Your task to perform on an android device: turn off picture-in-picture Image 0: 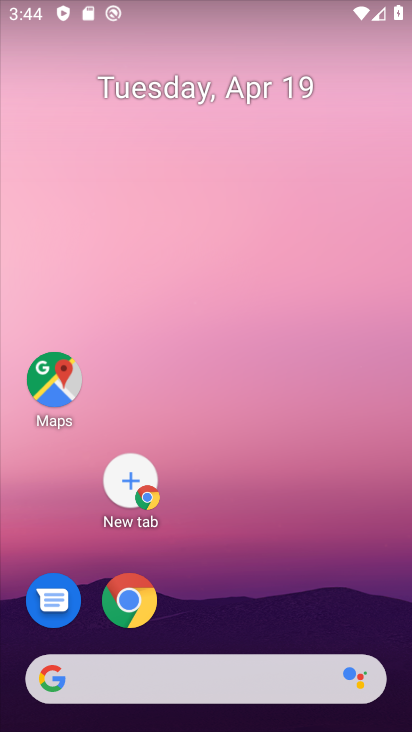
Step 0: click (146, 606)
Your task to perform on an android device: turn off picture-in-picture Image 1: 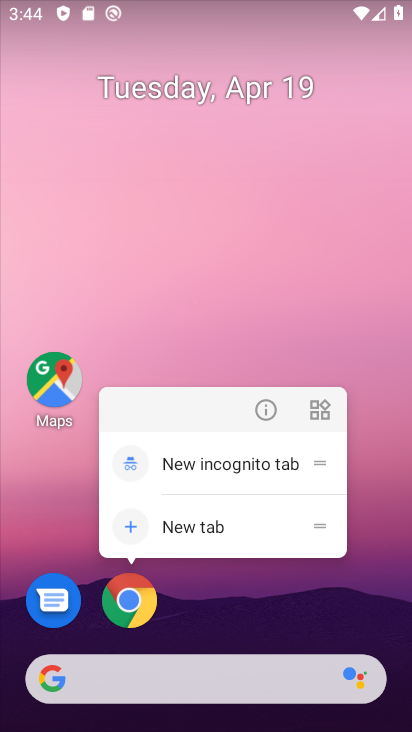
Step 1: click (268, 411)
Your task to perform on an android device: turn off picture-in-picture Image 2: 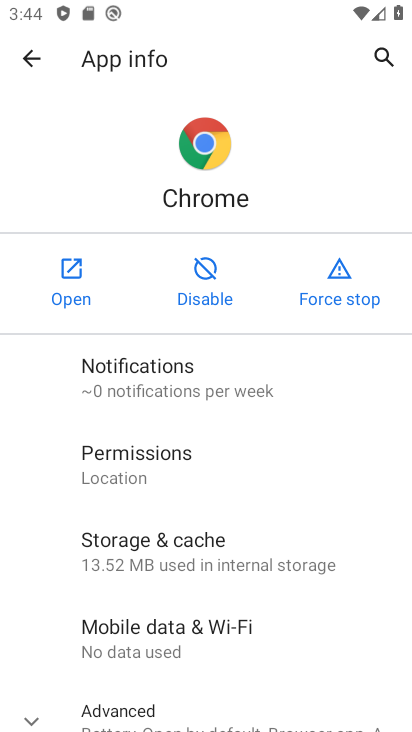
Step 2: drag from (216, 582) to (270, 74)
Your task to perform on an android device: turn off picture-in-picture Image 3: 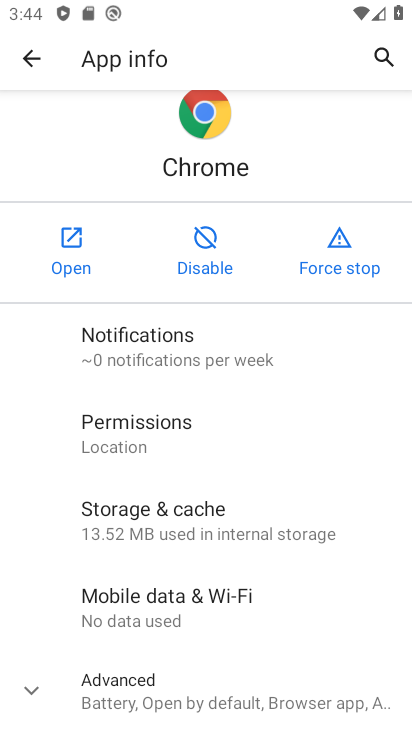
Step 3: drag from (154, 634) to (199, 20)
Your task to perform on an android device: turn off picture-in-picture Image 4: 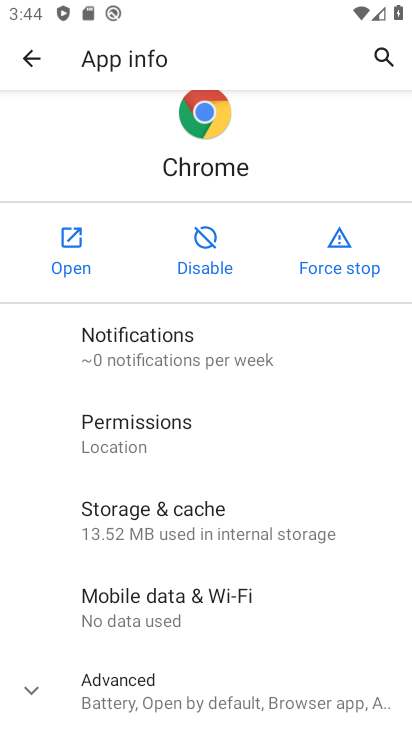
Step 4: drag from (154, 697) to (172, 220)
Your task to perform on an android device: turn off picture-in-picture Image 5: 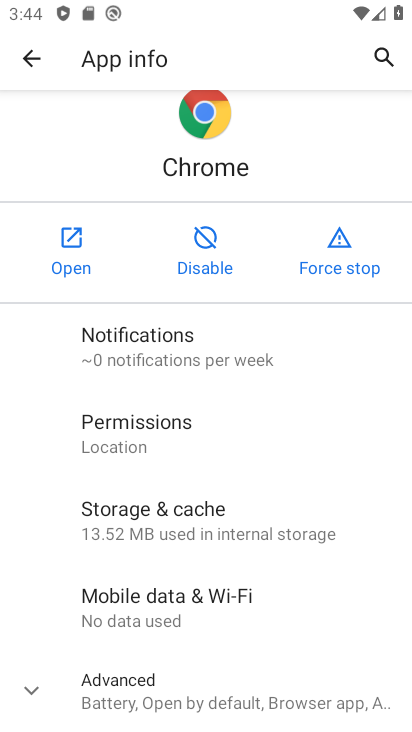
Step 5: click (112, 719)
Your task to perform on an android device: turn off picture-in-picture Image 6: 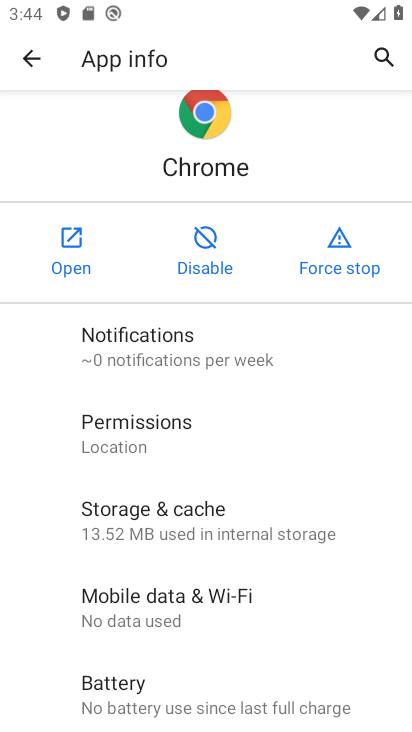
Step 6: drag from (135, 522) to (181, 40)
Your task to perform on an android device: turn off picture-in-picture Image 7: 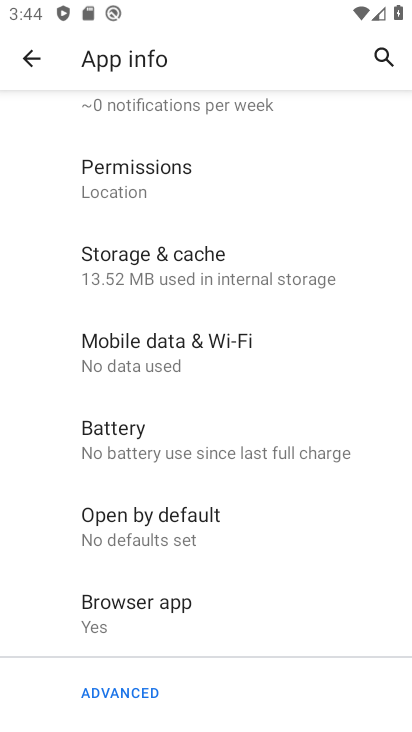
Step 7: drag from (91, 618) to (155, 141)
Your task to perform on an android device: turn off picture-in-picture Image 8: 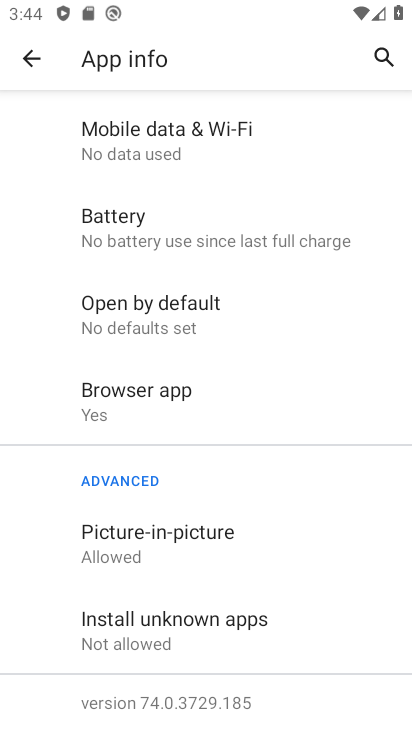
Step 8: click (113, 551)
Your task to perform on an android device: turn off picture-in-picture Image 9: 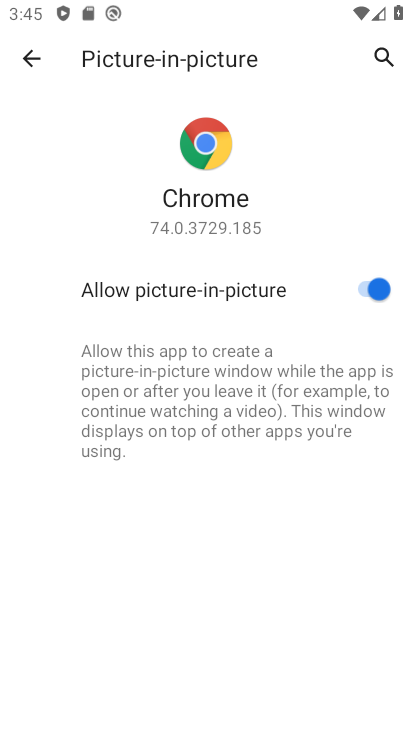
Step 9: click (360, 295)
Your task to perform on an android device: turn off picture-in-picture Image 10: 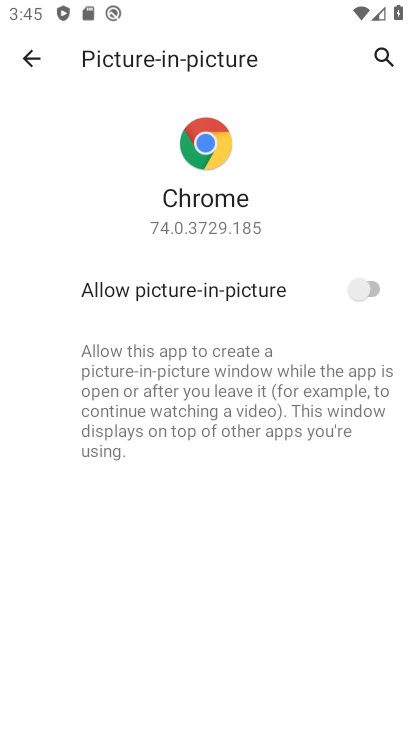
Step 10: task complete